Your task to perform on an android device: toggle improve location accuracy Image 0: 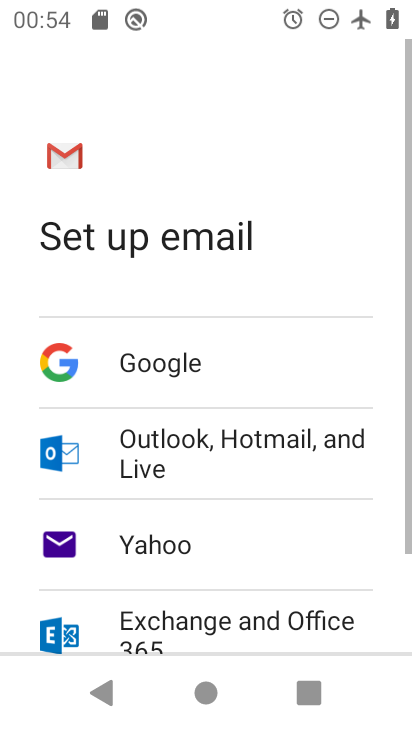
Step 0: press home button
Your task to perform on an android device: toggle improve location accuracy Image 1: 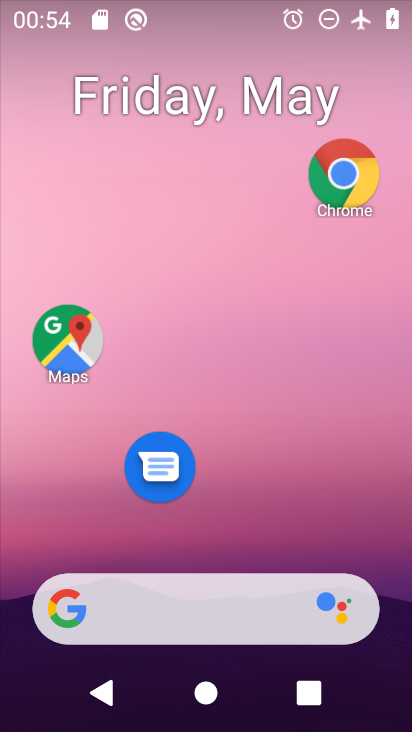
Step 1: drag from (262, 514) to (256, 202)
Your task to perform on an android device: toggle improve location accuracy Image 2: 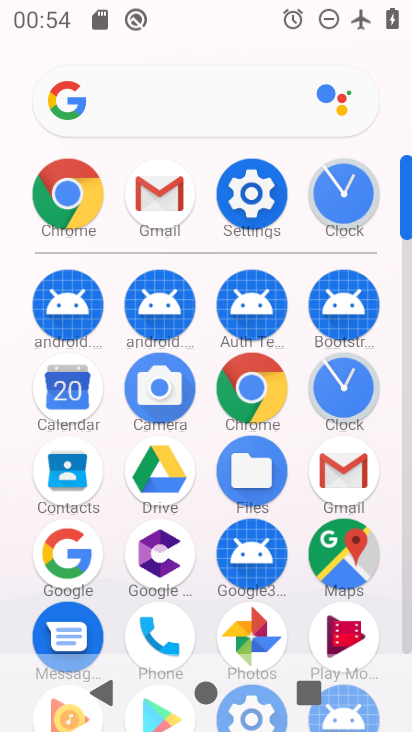
Step 2: click (265, 182)
Your task to perform on an android device: toggle improve location accuracy Image 3: 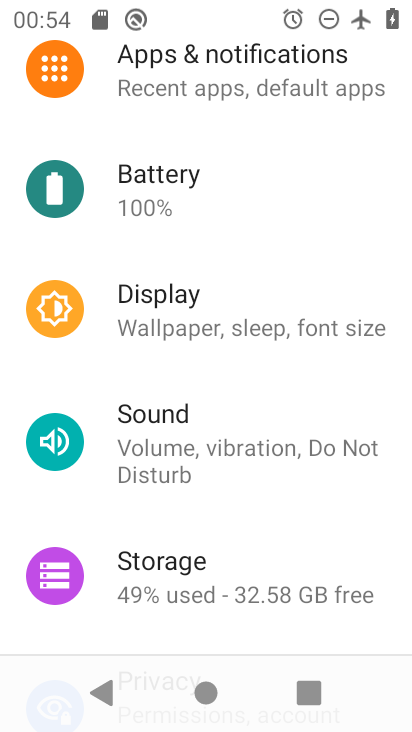
Step 3: drag from (238, 613) to (272, 66)
Your task to perform on an android device: toggle improve location accuracy Image 4: 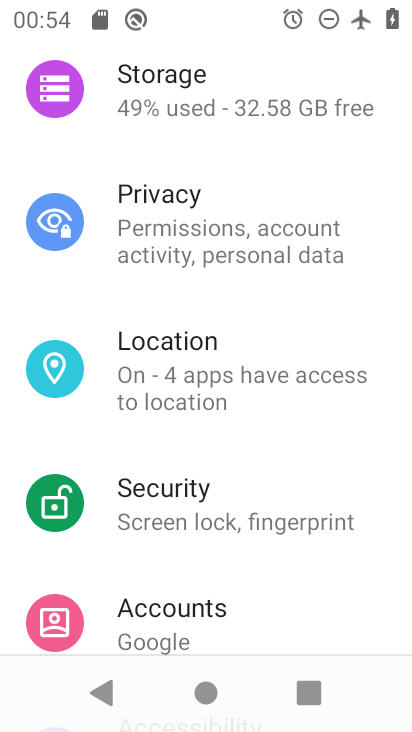
Step 4: click (184, 373)
Your task to perform on an android device: toggle improve location accuracy Image 5: 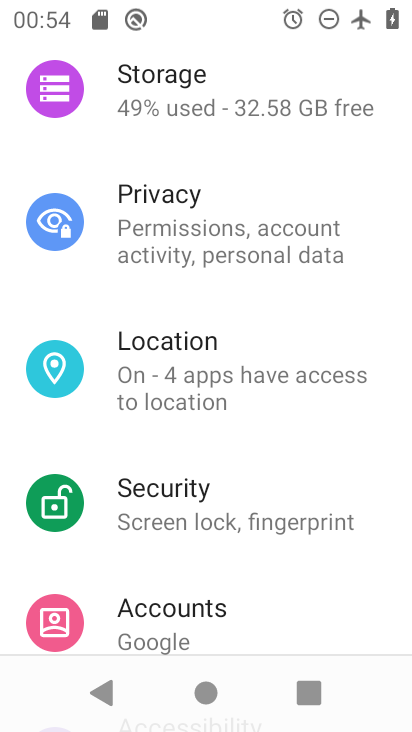
Step 5: click (176, 379)
Your task to perform on an android device: toggle improve location accuracy Image 6: 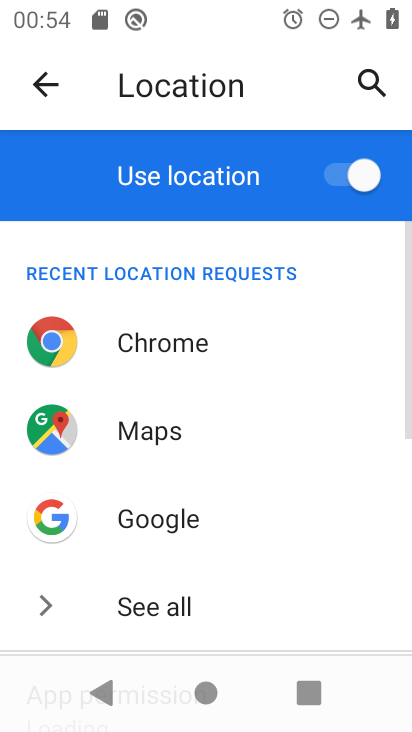
Step 6: drag from (291, 585) to (346, 200)
Your task to perform on an android device: toggle improve location accuracy Image 7: 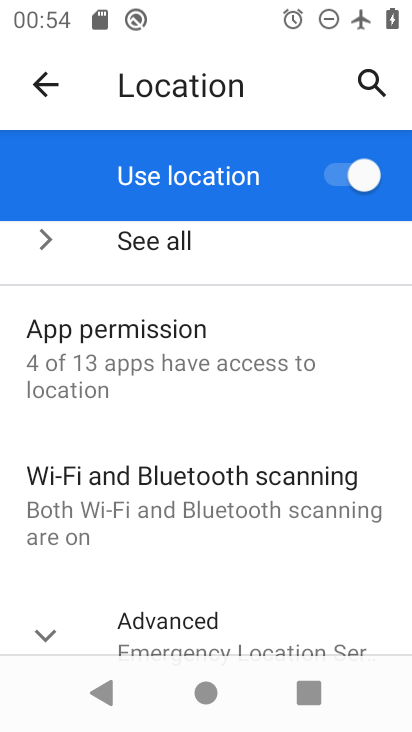
Step 7: drag from (255, 450) to (290, 188)
Your task to perform on an android device: toggle improve location accuracy Image 8: 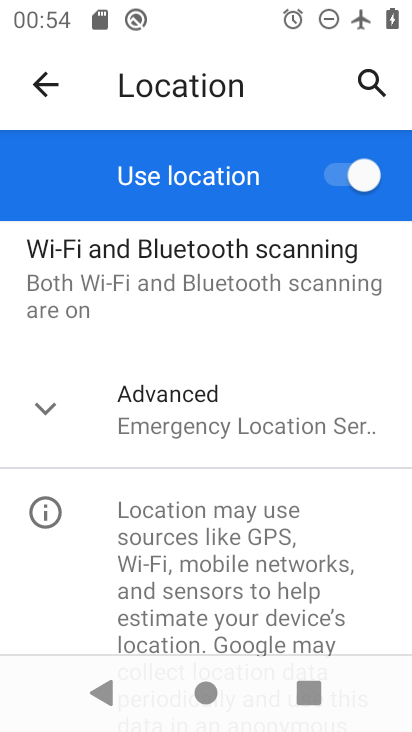
Step 8: click (222, 401)
Your task to perform on an android device: toggle improve location accuracy Image 9: 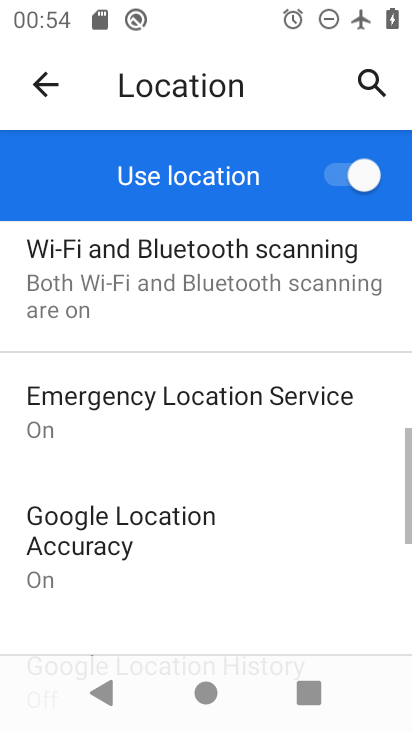
Step 9: drag from (150, 577) to (173, 398)
Your task to perform on an android device: toggle improve location accuracy Image 10: 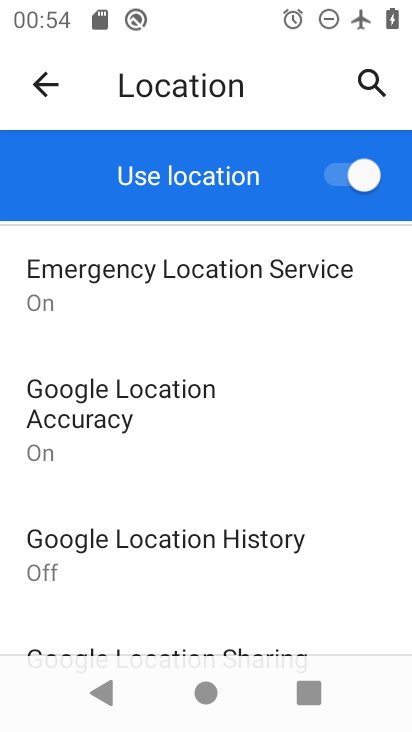
Step 10: click (168, 392)
Your task to perform on an android device: toggle improve location accuracy Image 11: 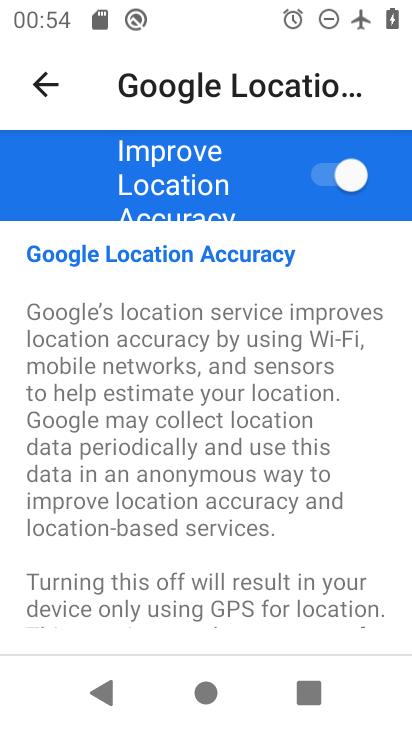
Step 11: click (350, 160)
Your task to perform on an android device: toggle improve location accuracy Image 12: 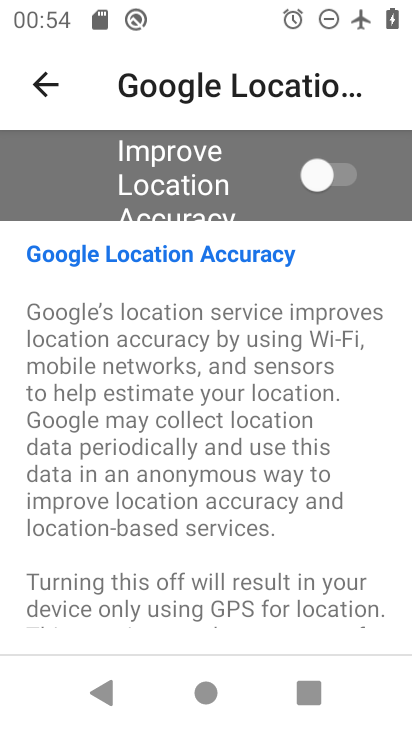
Step 12: task complete